Your task to perform on an android device: check the backup settings in the google photos Image 0: 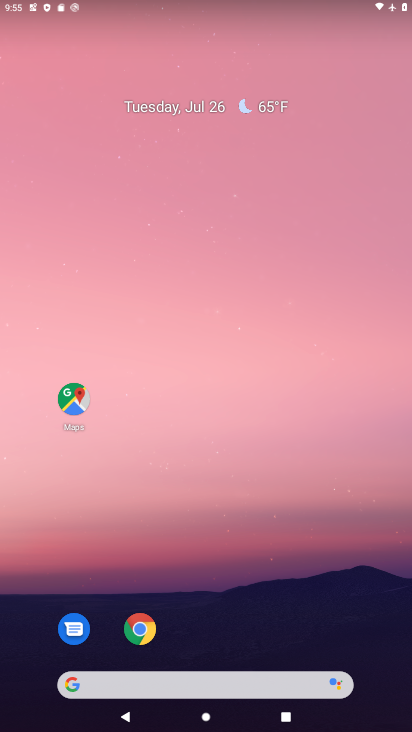
Step 0: drag from (326, 611) to (233, 32)
Your task to perform on an android device: check the backup settings in the google photos Image 1: 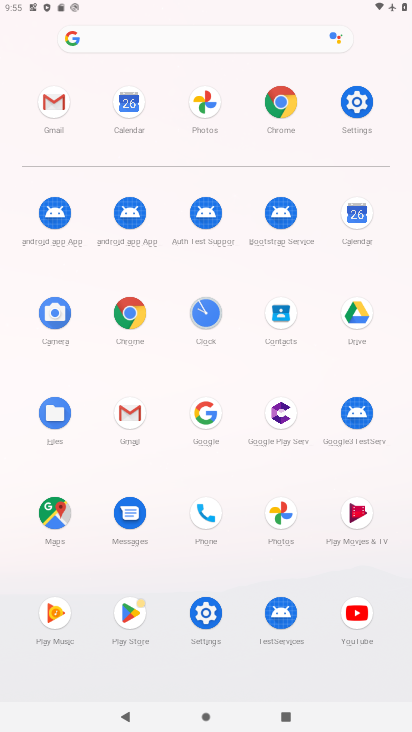
Step 1: click (275, 511)
Your task to perform on an android device: check the backup settings in the google photos Image 2: 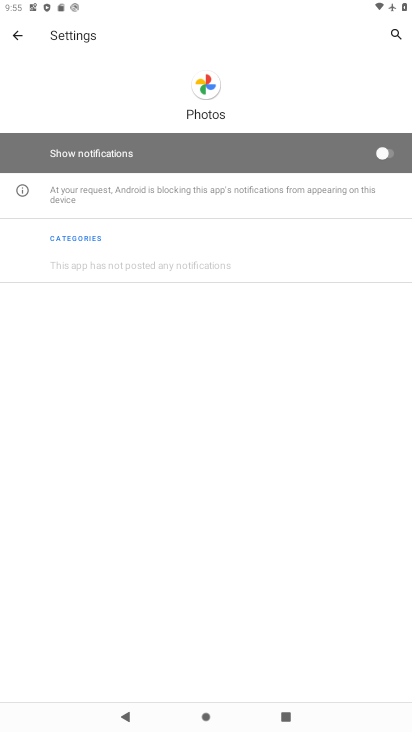
Step 2: click (3, 24)
Your task to perform on an android device: check the backup settings in the google photos Image 3: 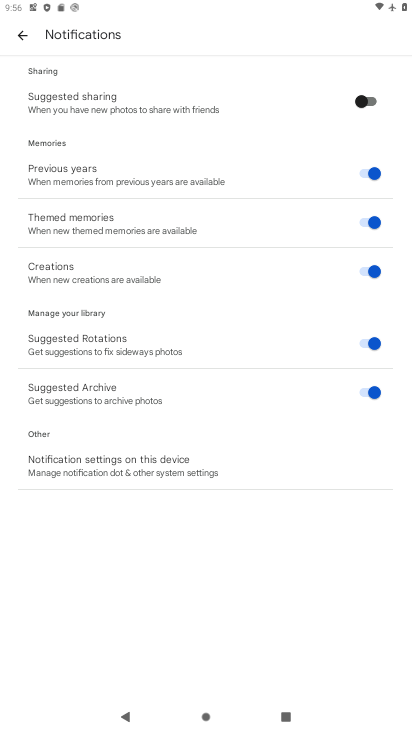
Step 3: click (28, 40)
Your task to perform on an android device: check the backup settings in the google photos Image 4: 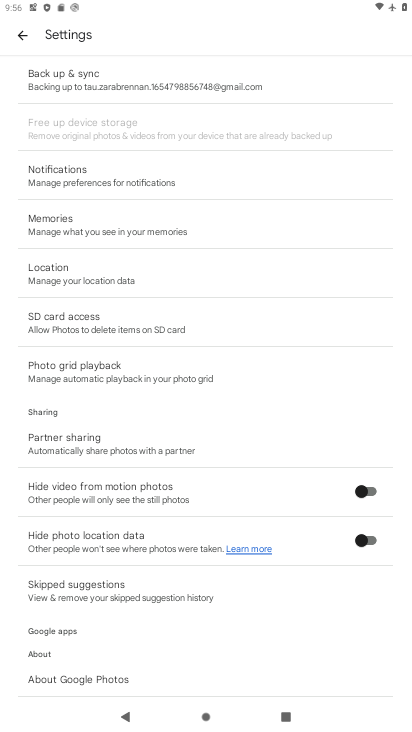
Step 4: click (49, 76)
Your task to perform on an android device: check the backup settings in the google photos Image 5: 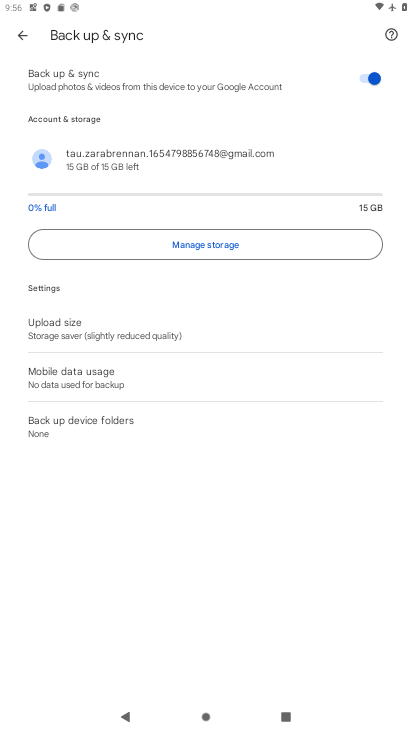
Step 5: task complete